Your task to perform on an android device: star an email in the gmail app Image 0: 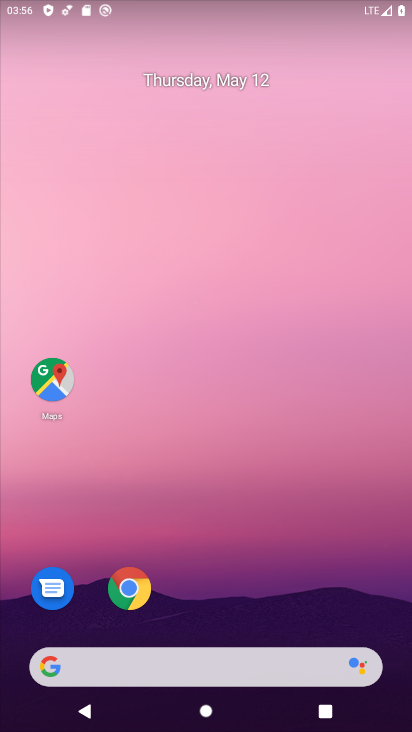
Step 0: drag from (190, 578) to (278, 200)
Your task to perform on an android device: star an email in the gmail app Image 1: 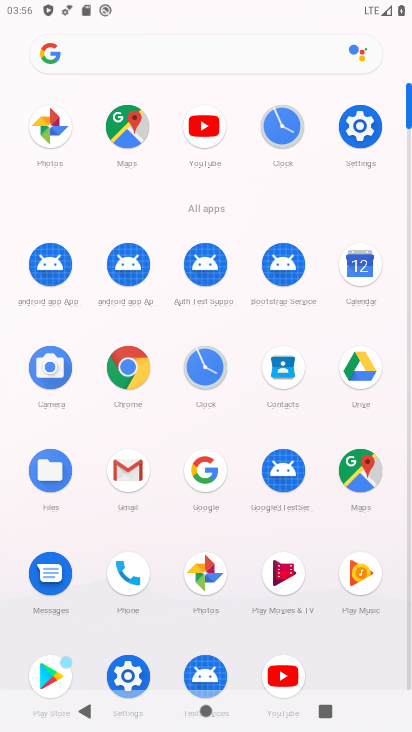
Step 1: click (116, 477)
Your task to perform on an android device: star an email in the gmail app Image 2: 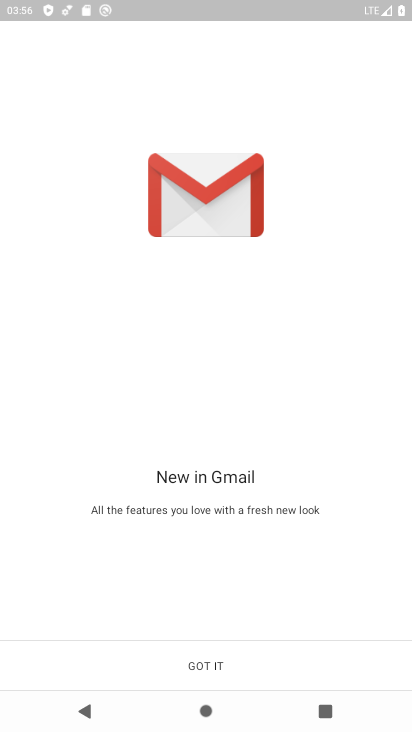
Step 2: click (175, 671)
Your task to perform on an android device: star an email in the gmail app Image 3: 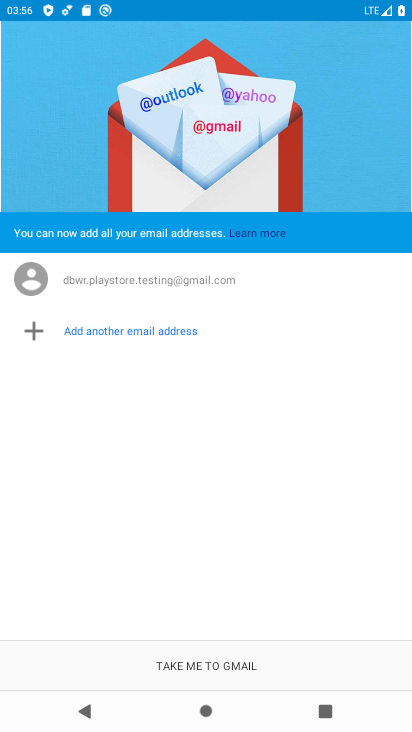
Step 3: click (203, 665)
Your task to perform on an android device: star an email in the gmail app Image 4: 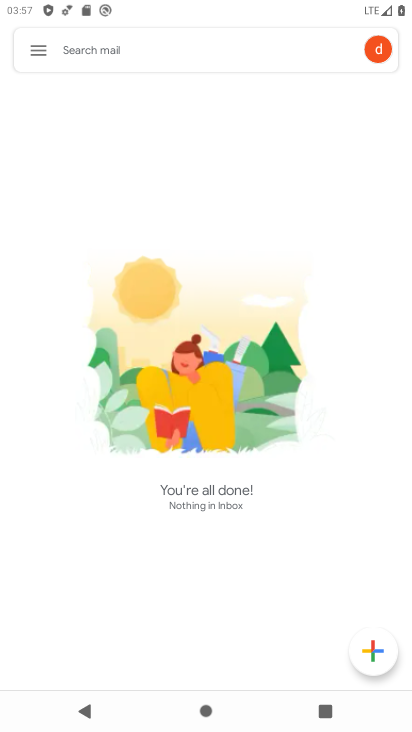
Step 4: task complete